Your task to perform on an android device: open device folders in google photos Image 0: 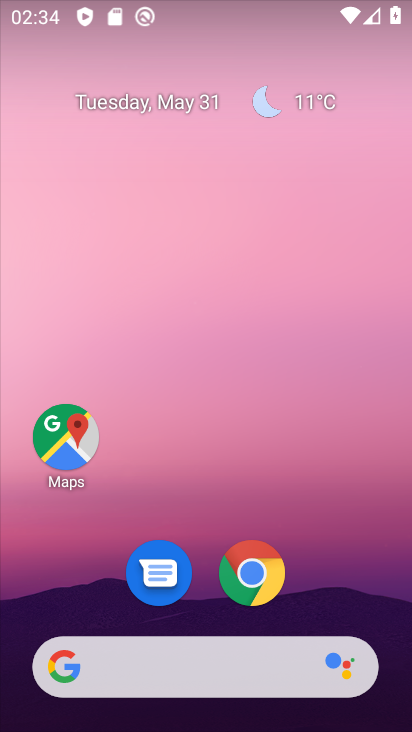
Step 0: drag from (323, 614) to (306, 121)
Your task to perform on an android device: open device folders in google photos Image 1: 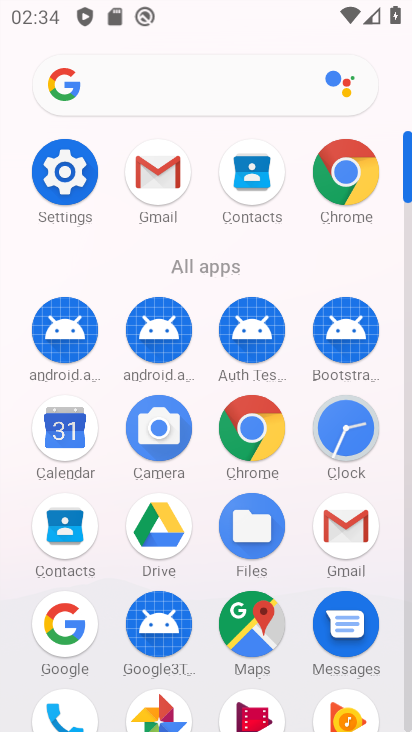
Step 1: click (409, 700)
Your task to perform on an android device: open device folders in google photos Image 2: 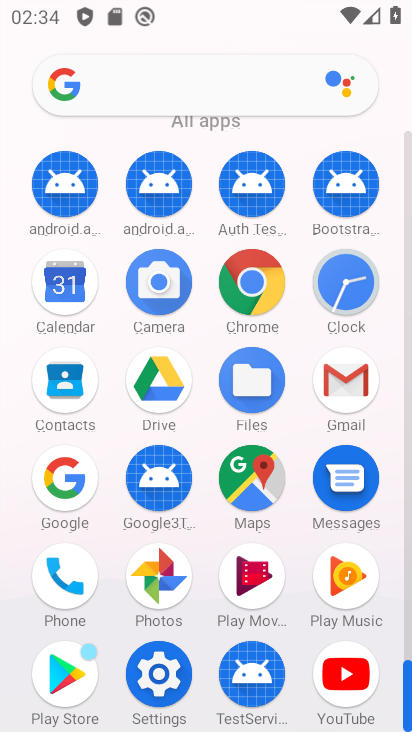
Step 2: click (173, 583)
Your task to perform on an android device: open device folders in google photos Image 3: 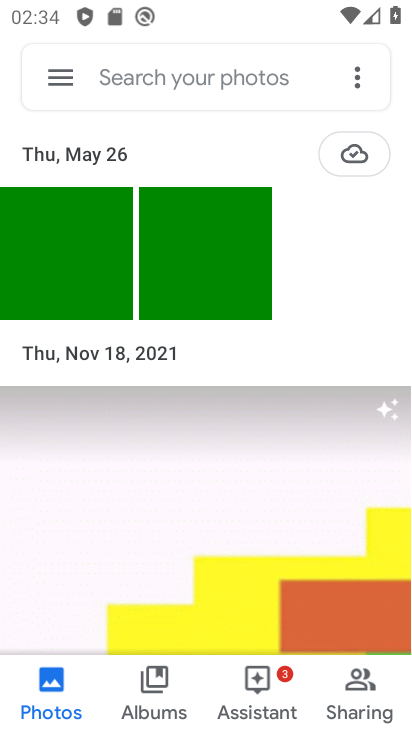
Step 3: click (67, 78)
Your task to perform on an android device: open device folders in google photos Image 4: 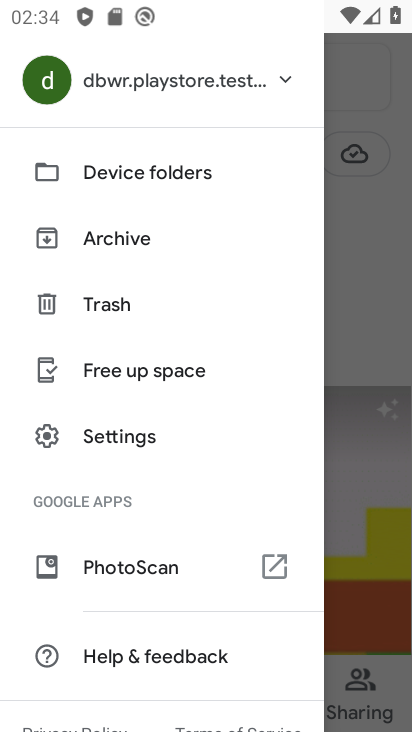
Step 4: click (120, 181)
Your task to perform on an android device: open device folders in google photos Image 5: 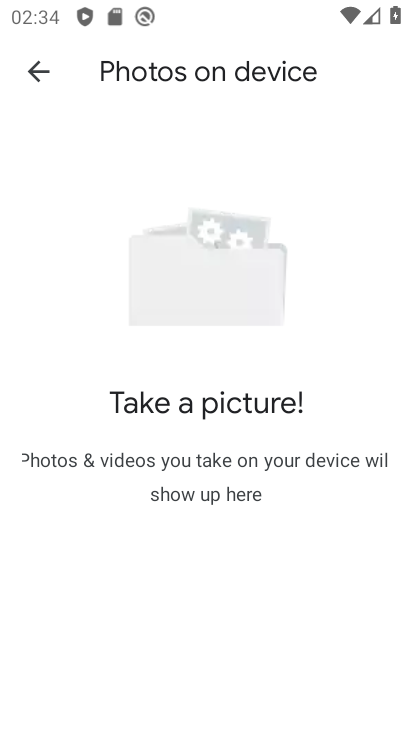
Step 5: task complete